Your task to perform on an android device: check battery use Image 0: 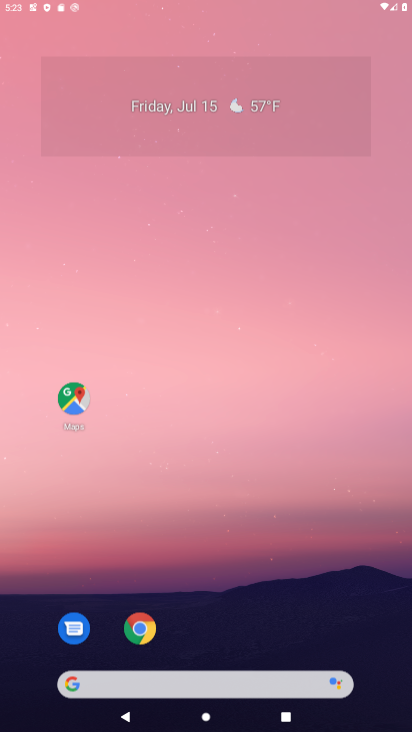
Step 0: press home button
Your task to perform on an android device: check battery use Image 1: 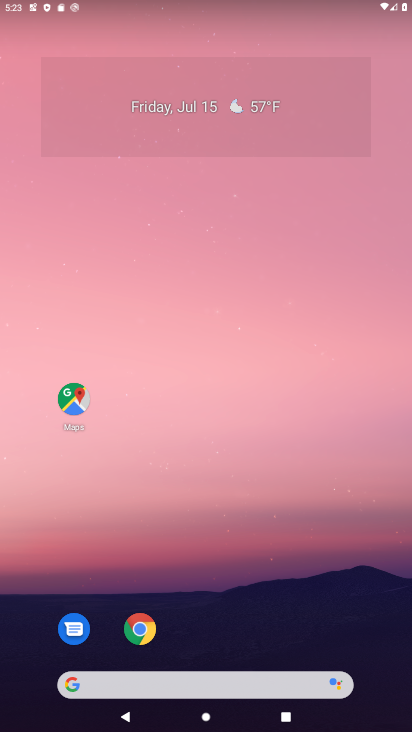
Step 1: drag from (286, 575) to (365, 105)
Your task to perform on an android device: check battery use Image 2: 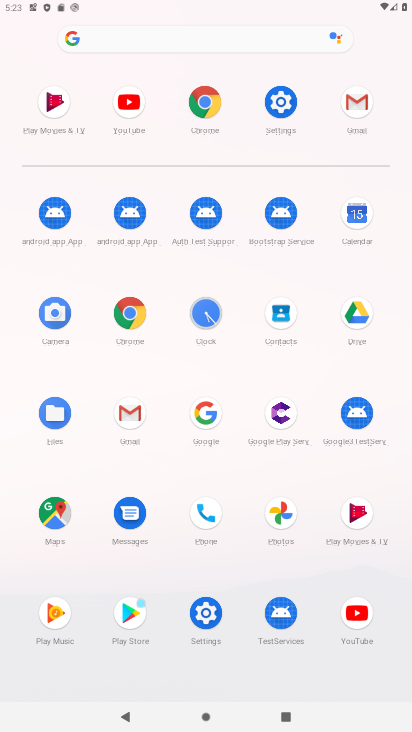
Step 2: click (281, 109)
Your task to perform on an android device: check battery use Image 3: 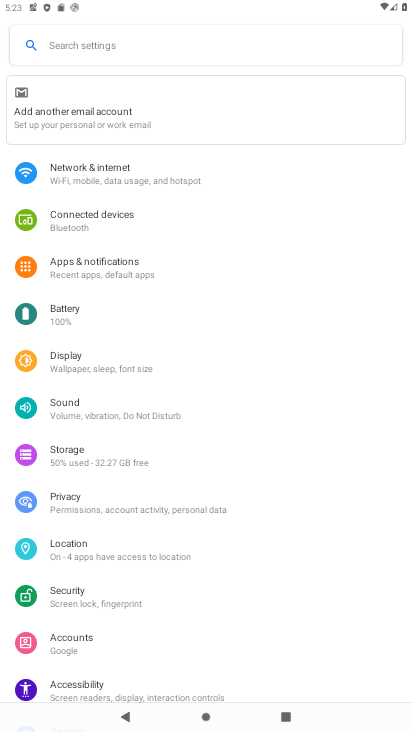
Step 3: click (84, 317)
Your task to perform on an android device: check battery use Image 4: 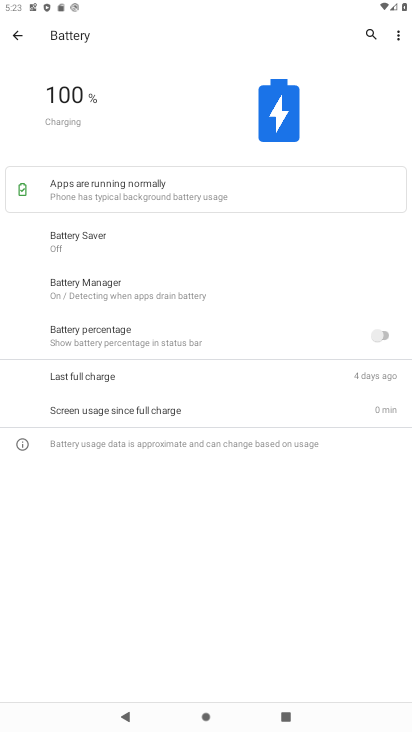
Step 4: task complete